Your task to perform on an android device: Go to Google Image 0: 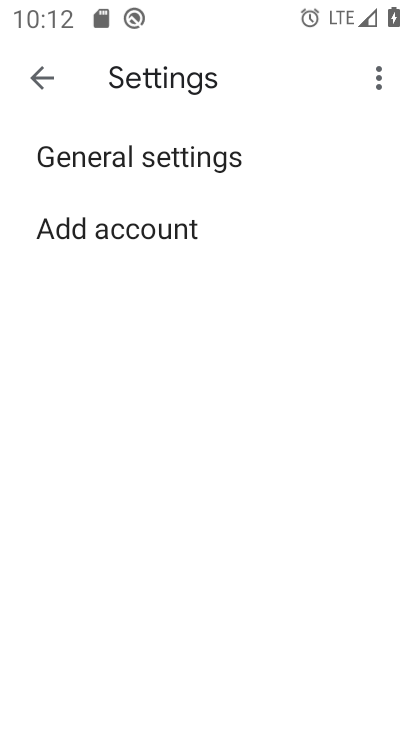
Step 0: press home button
Your task to perform on an android device: Go to Google Image 1: 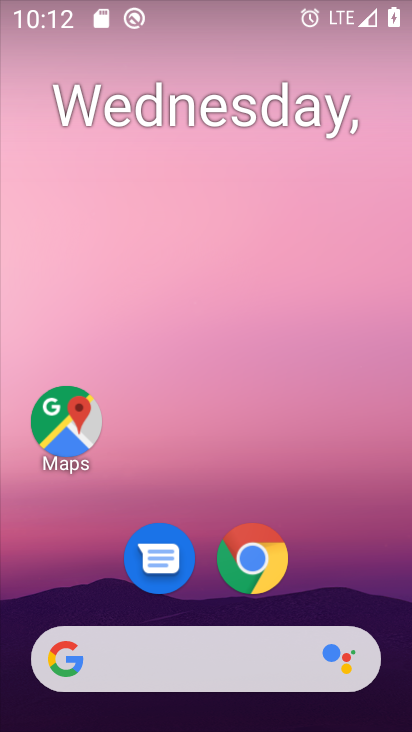
Step 1: drag from (330, 606) to (301, 512)
Your task to perform on an android device: Go to Google Image 2: 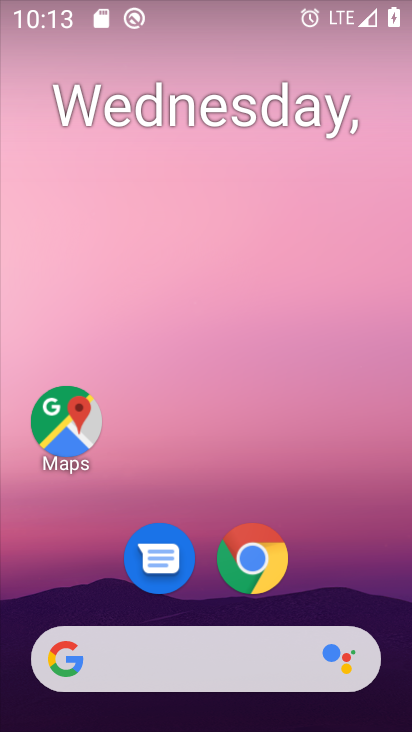
Step 2: drag from (388, 245) to (376, 54)
Your task to perform on an android device: Go to Google Image 3: 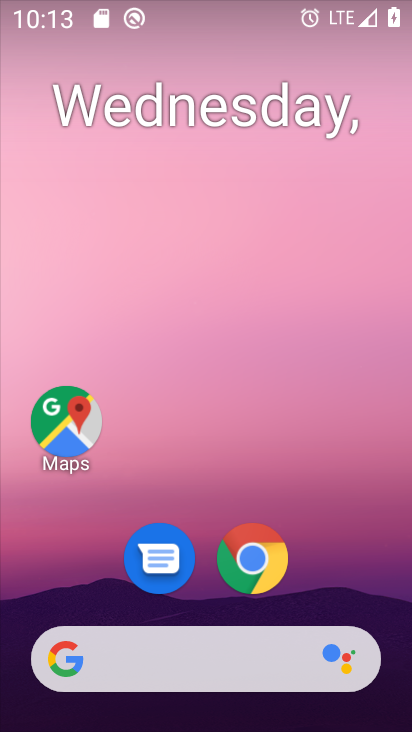
Step 3: drag from (354, 358) to (409, 389)
Your task to perform on an android device: Go to Google Image 4: 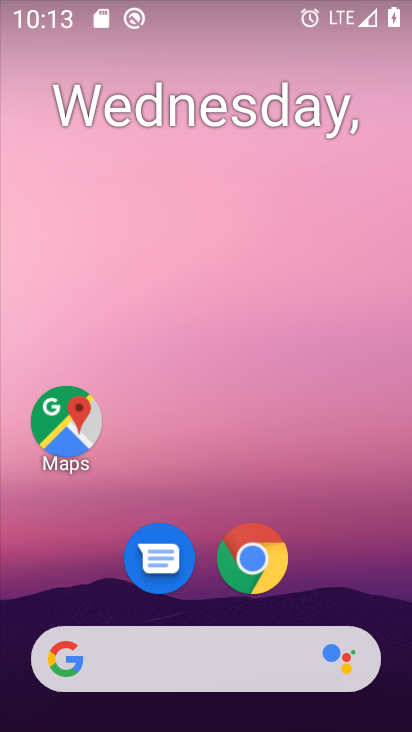
Step 4: drag from (338, 591) to (388, 56)
Your task to perform on an android device: Go to Google Image 5: 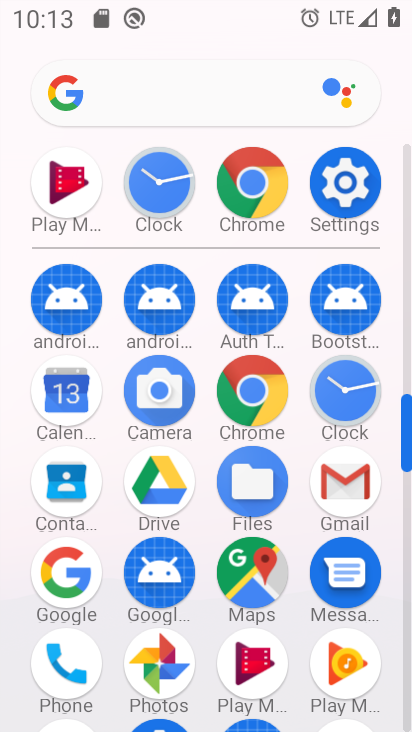
Step 5: click (77, 573)
Your task to perform on an android device: Go to Google Image 6: 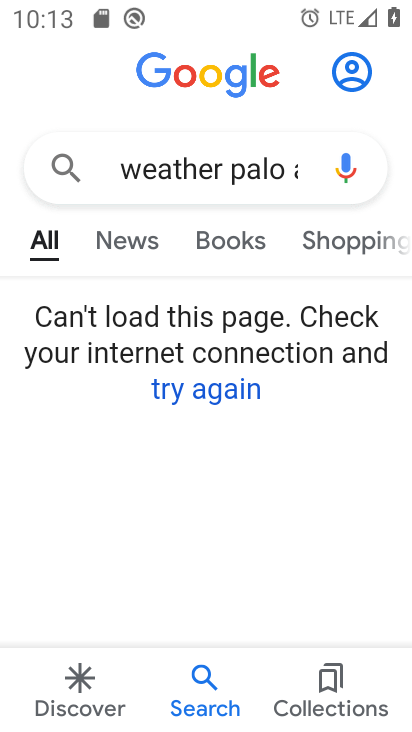
Step 6: task complete